Your task to perform on an android device: Go to eBay Image 0: 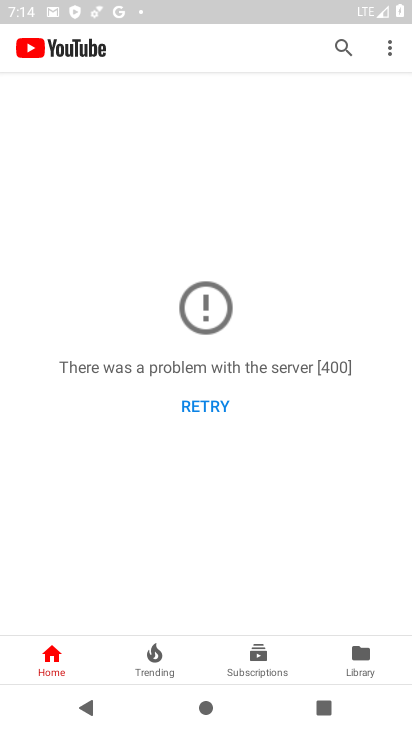
Step 0: press home button
Your task to perform on an android device: Go to eBay Image 1: 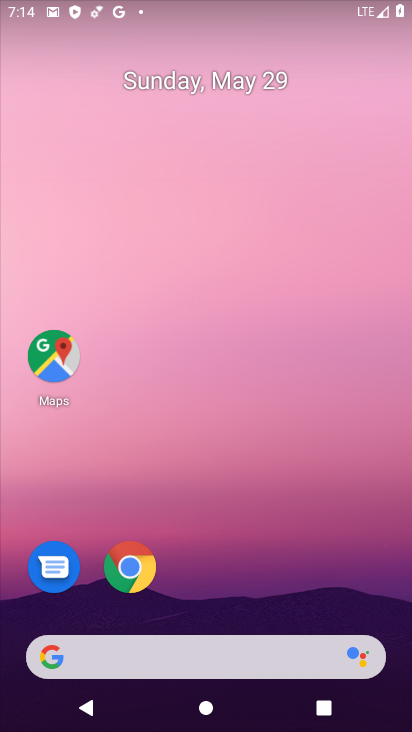
Step 1: click (137, 557)
Your task to perform on an android device: Go to eBay Image 2: 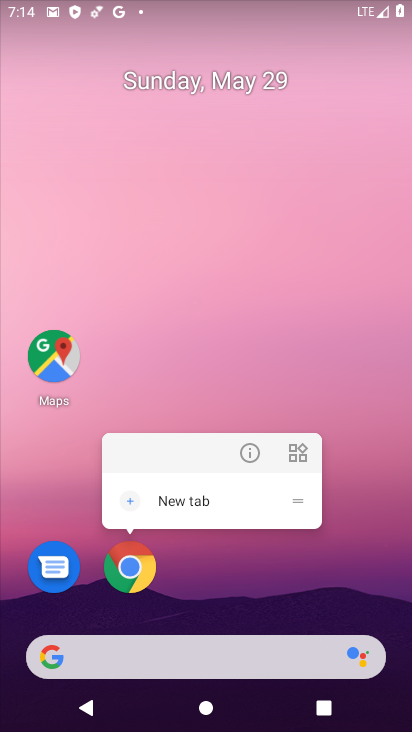
Step 2: click (132, 564)
Your task to perform on an android device: Go to eBay Image 3: 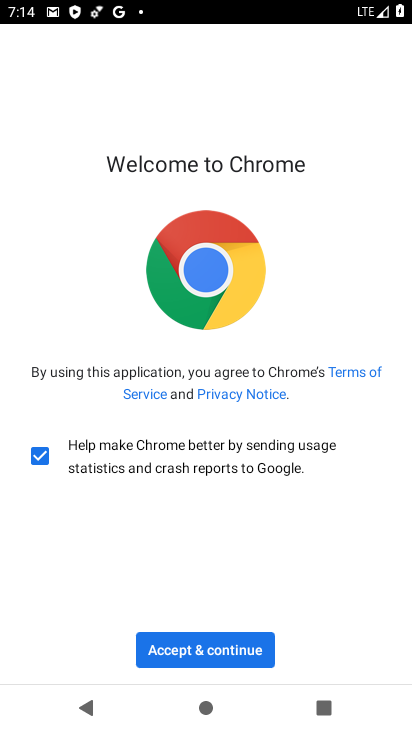
Step 3: click (246, 652)
Your task to perform on an android device: Go to eBay Image 4: 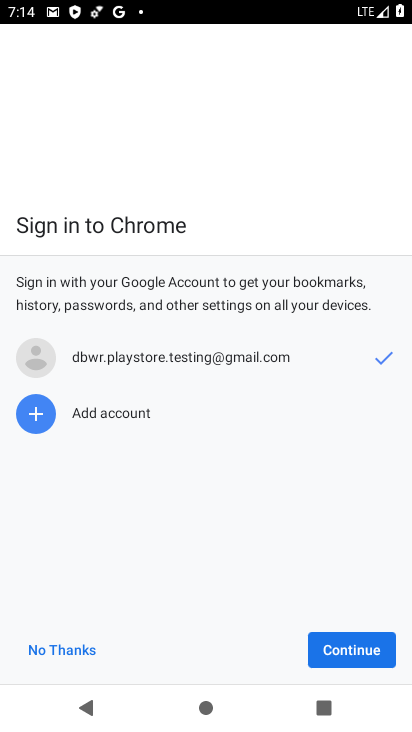
Step 4: click (373, 635)
Your task to perform on an android device: Go to eBay Image 5: 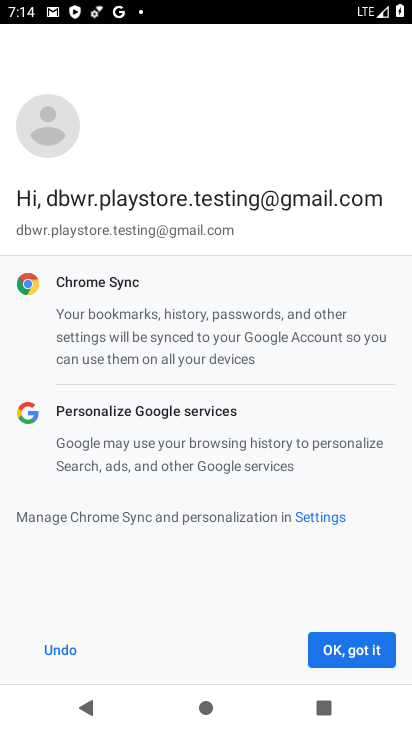
Step 5: click (348, 650)
Your task to perform on an android device: Go to eBay Image 6: 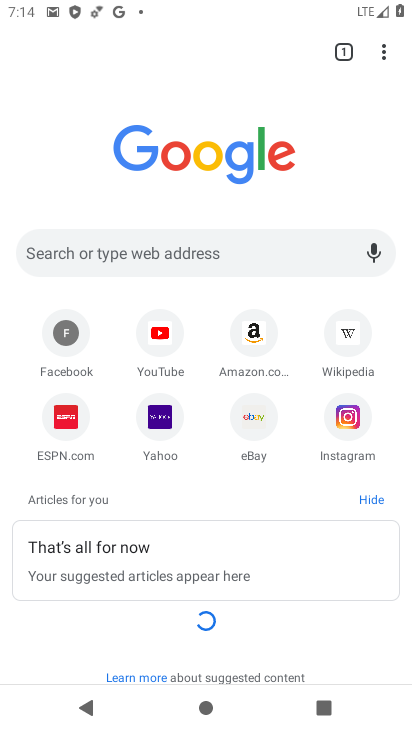
Step 6: click (264, 420)
Your task to perform on an android device: Go to eBay Image 7: 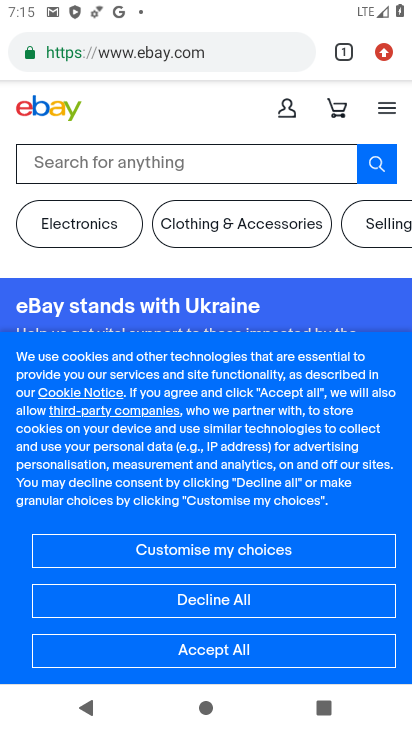
Step 7: task complete